Your task to perform on an android device: Open ESPN.com Image 0: 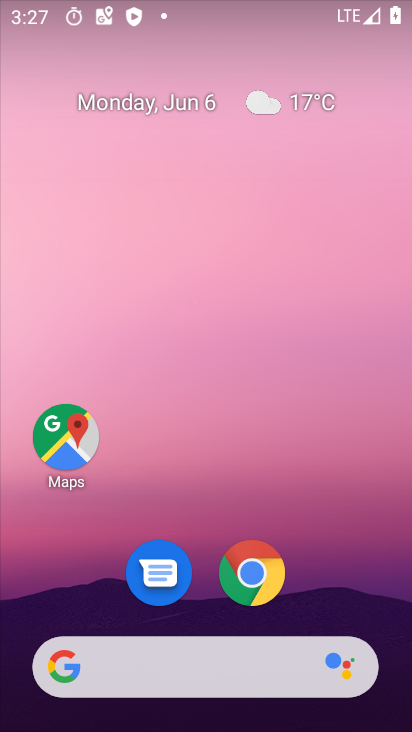
Step 0: drag from (359, 582) to (351, 218)
Your task to perform on an android device: Open ESPN.com Image 1: 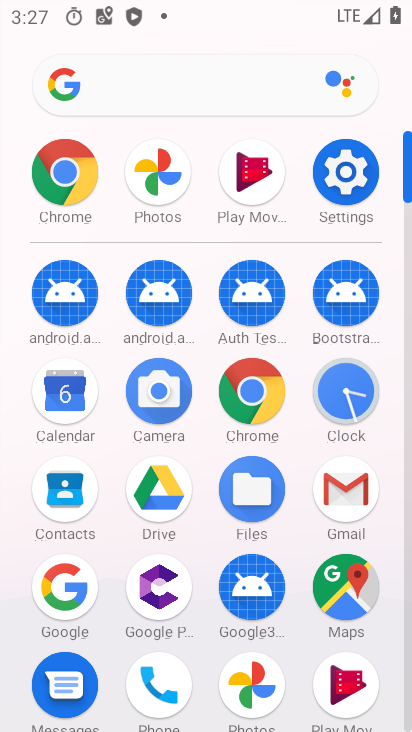
Step 1: click (265, 399)
Your task to perform on an android device: Open ESPN.com Image 2: 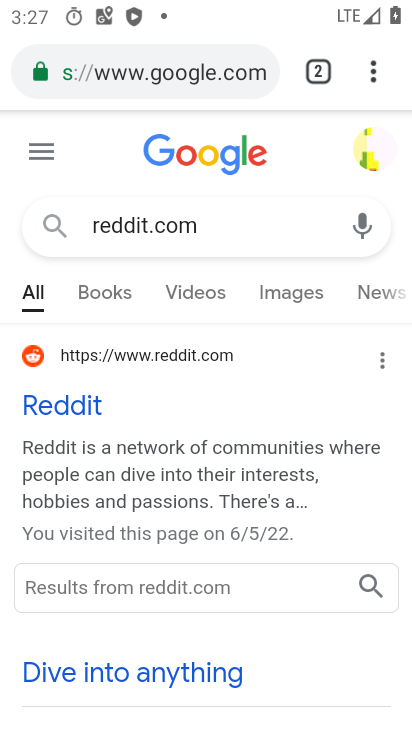
Step 2: click (230, 81)
Your task to perform on an android device: Open ESPN.com Image 3: 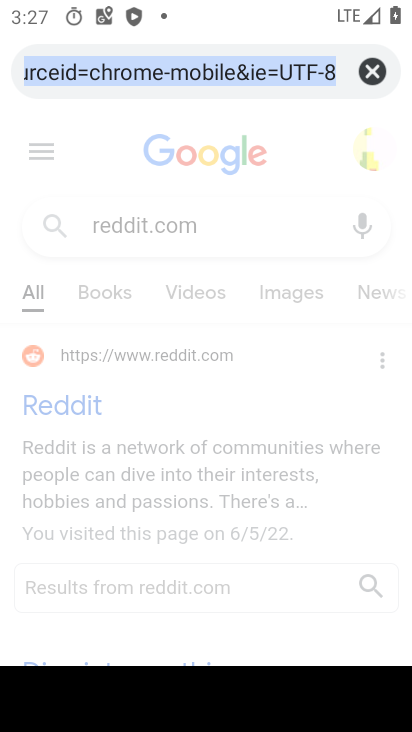
Step 3: click (369, 79)
Your task to perform on an android device: Open ESPN.com Image 4: 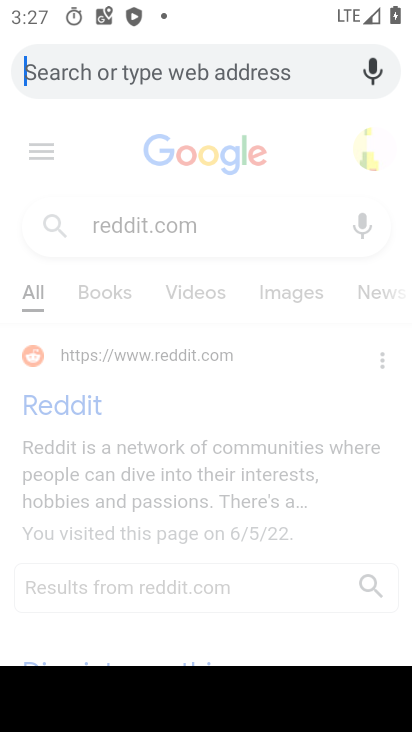
Step 4: type "espn.com"
Your task to perform on an android device: Open ESPN.com Image 5: 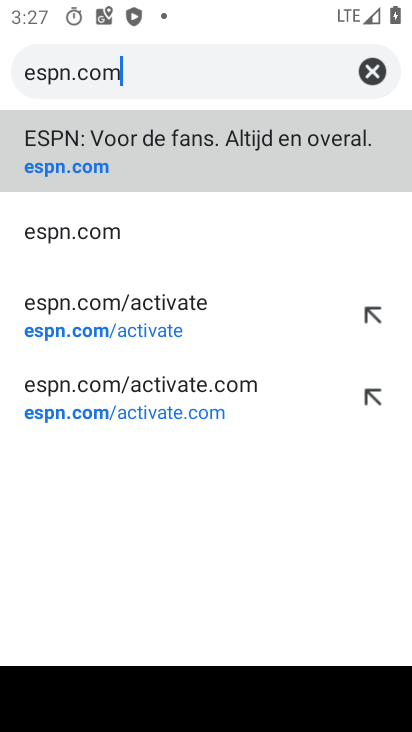
Step 5: click (176, 175)
Your task to perform on an android device: Open ESPN.com Image 6: 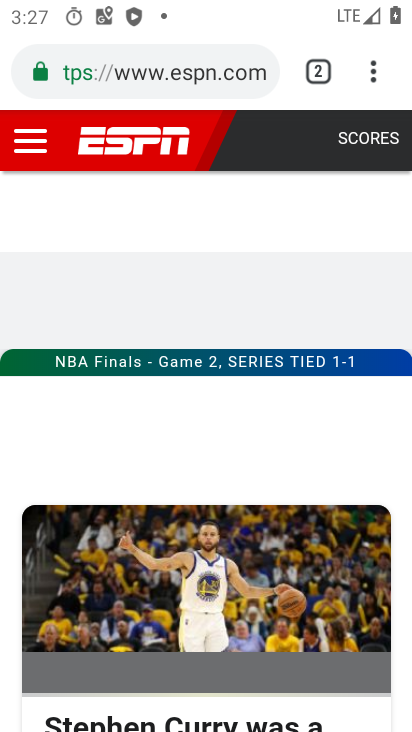
Step 6: task complete